Your task to perform on an android device: search for starred emails in the gmail app Image 0: 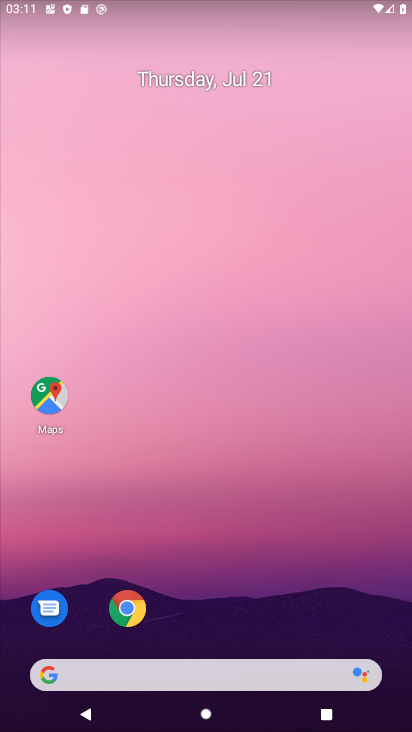
Step 0: drag from (75, 677) to (225, 10)
Your task to perform on an android device: search for starred emails in the gmail app Image 1: 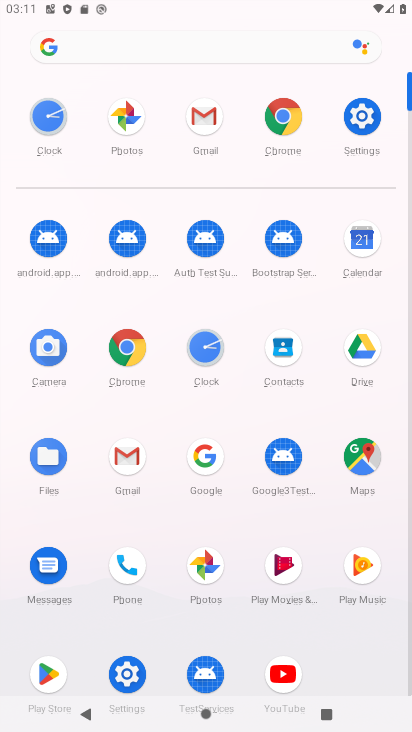
Step 1: click (127, 461)
Your task to perform on an android device: search for starred emails in the gmail app Image 2: 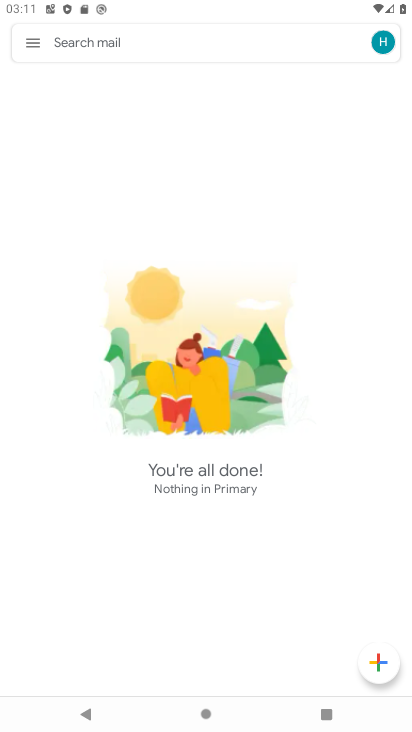
Step 2: click (35, 41)
Your task to perform on an android device: search for starred emails in the gmail app Image 3: 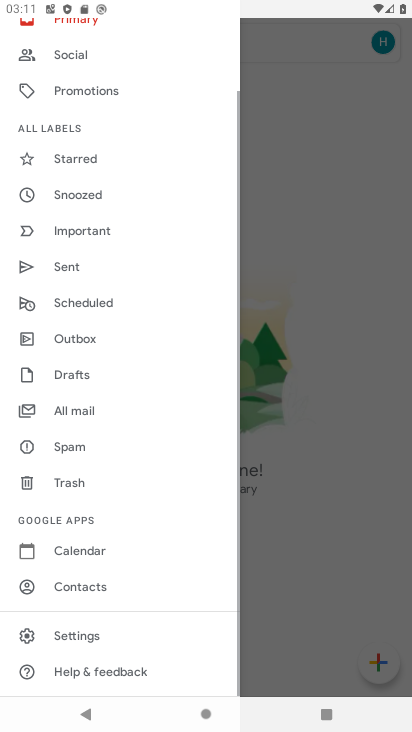
Step 3: click (106, 165)
Your task to perform on an android device: search for starred emails in the gmail app Image 4: 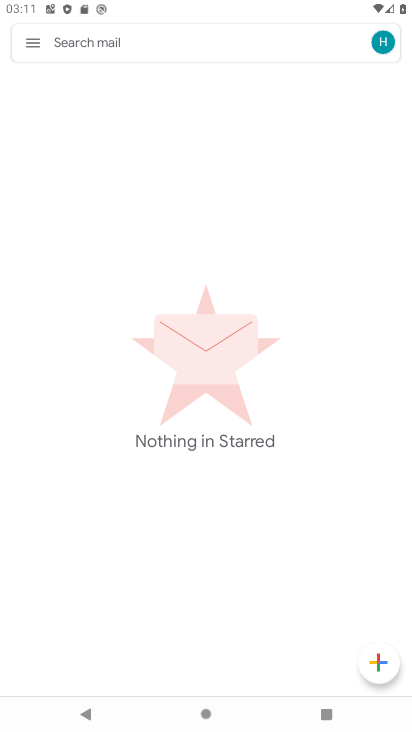
Step 4: task complete